Your task to perform on an android device: Search for the ikea billy bookcase Image 0: 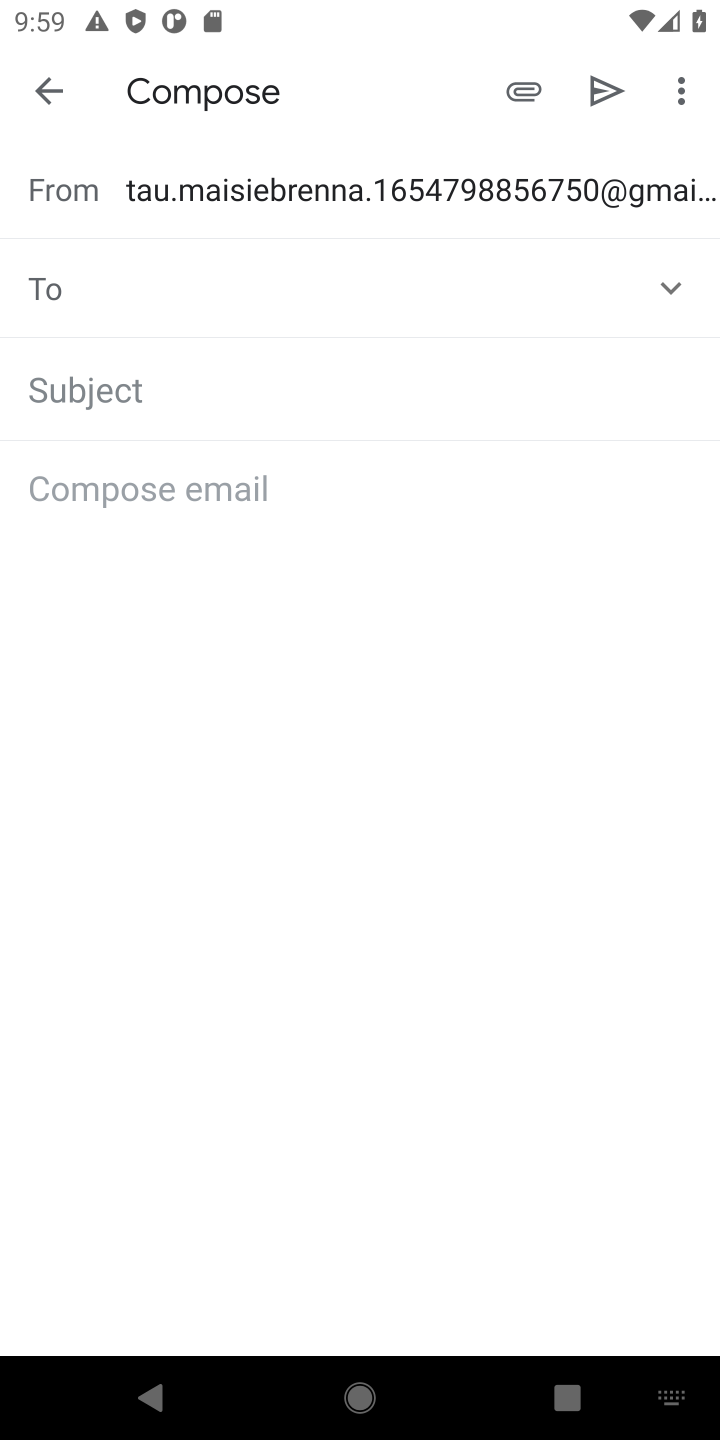
Step 0: press home button
Your task to perform on an android device: Search for the ikea billy bookcase Image 1: 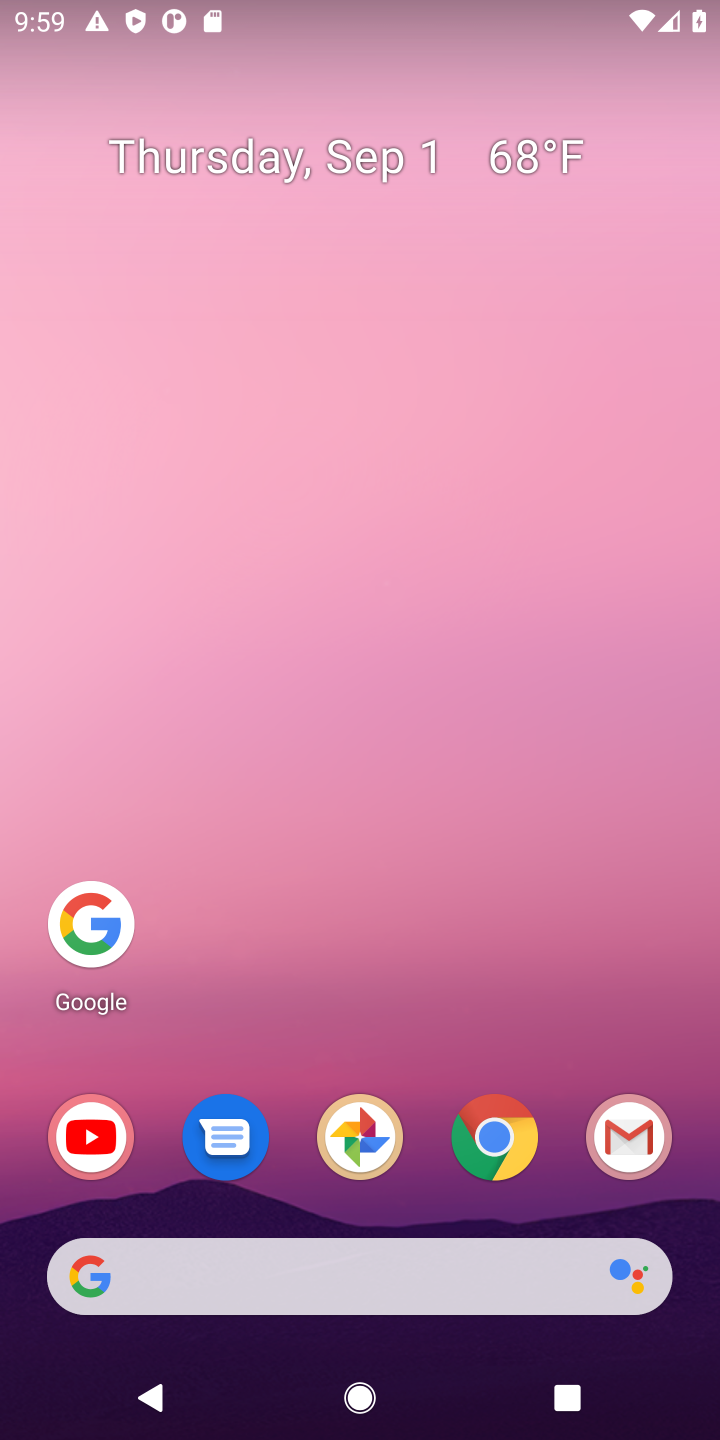
Step 1: click (297, 1267)
Your task to perform on an android device: Search for the ikea billy bookcase Image 2: 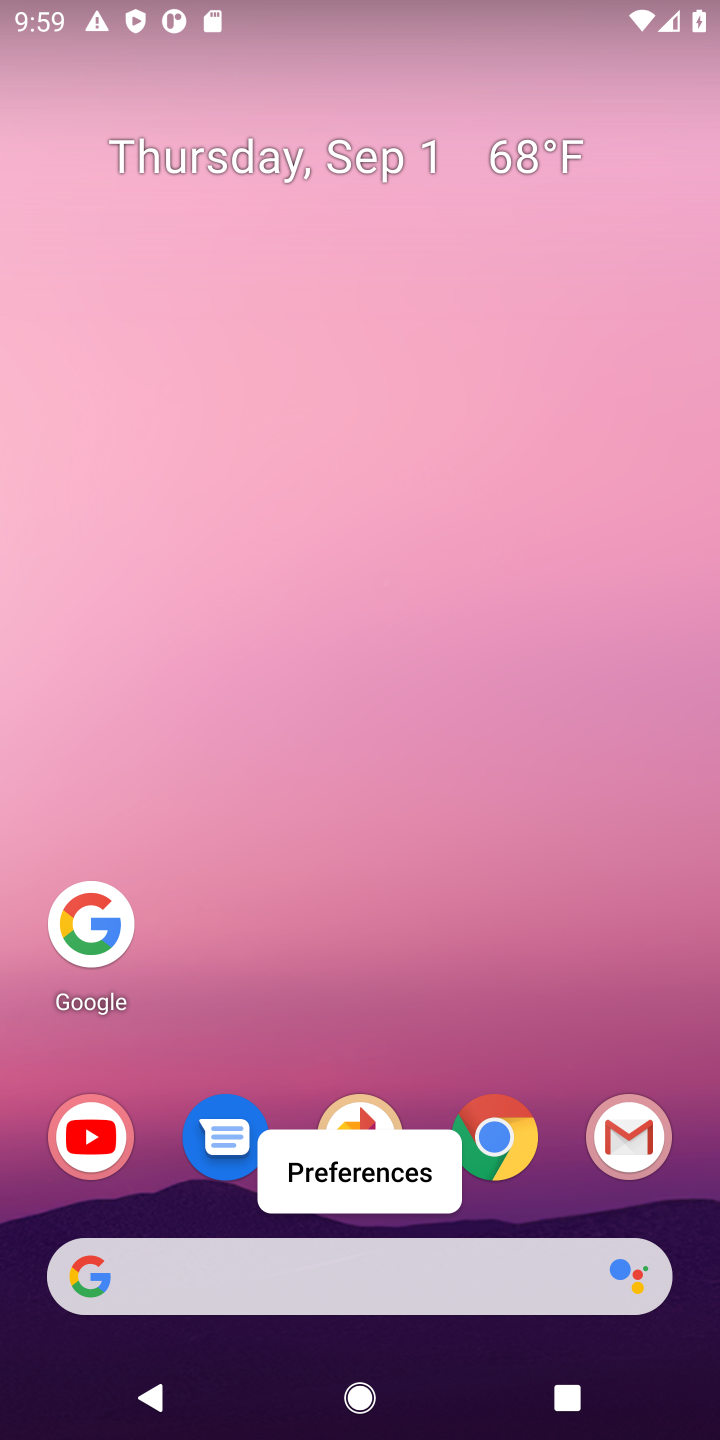
Step 2: click (101, 930)
Your task to perform on an android device: Search for the ikea billy bookcase Image 3: 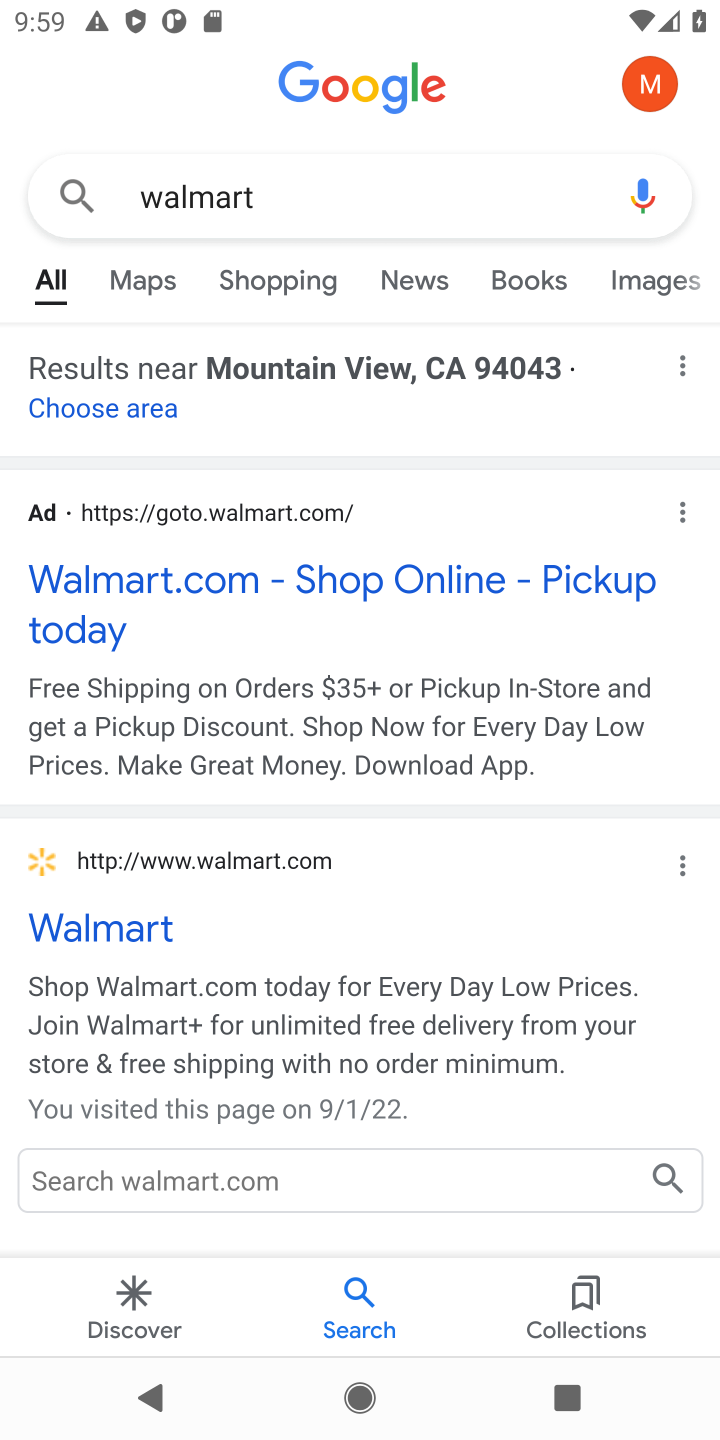
Step 3: click (292, 186)
Your task to perform on an android device: Search for the ikea billy bookcase Image 4: 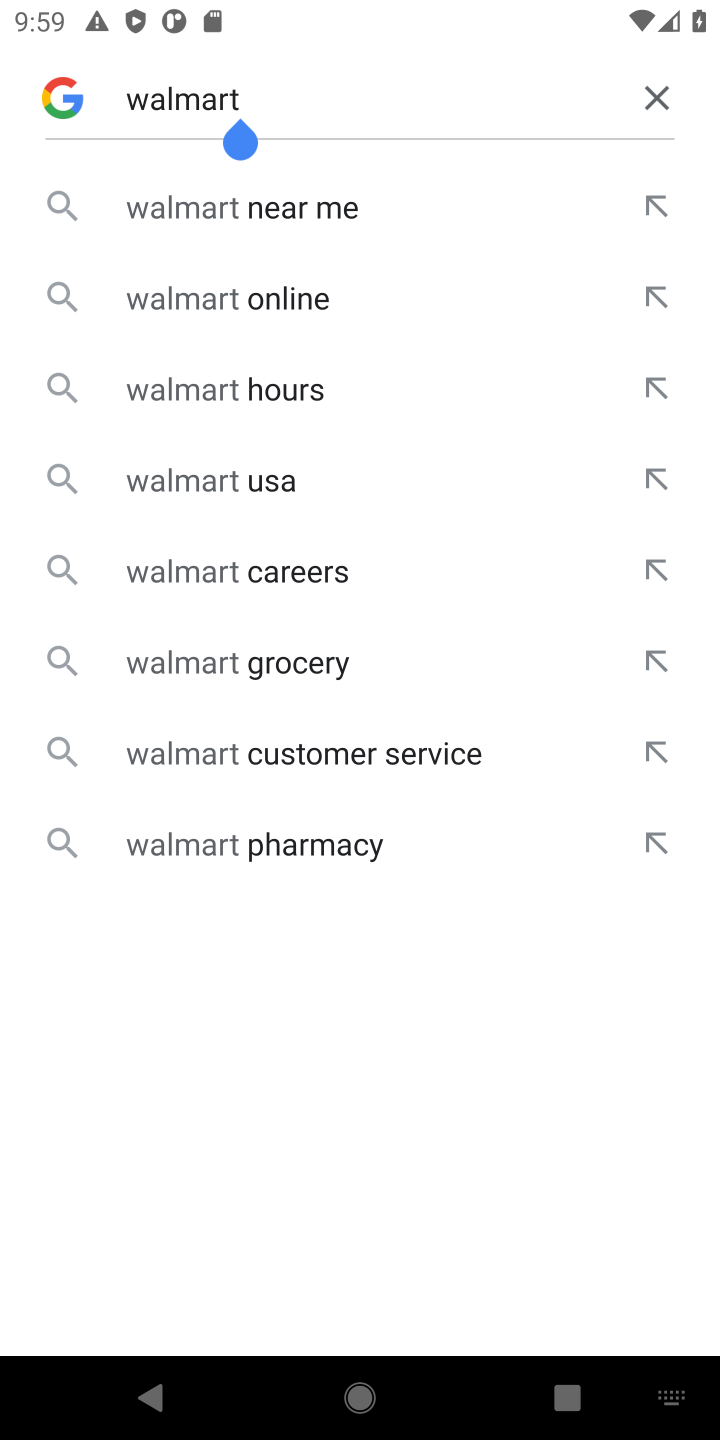
Step 4: click (656, 100)
Your task to perform on an android device: Search for the ikea billy bookcase Image 5: 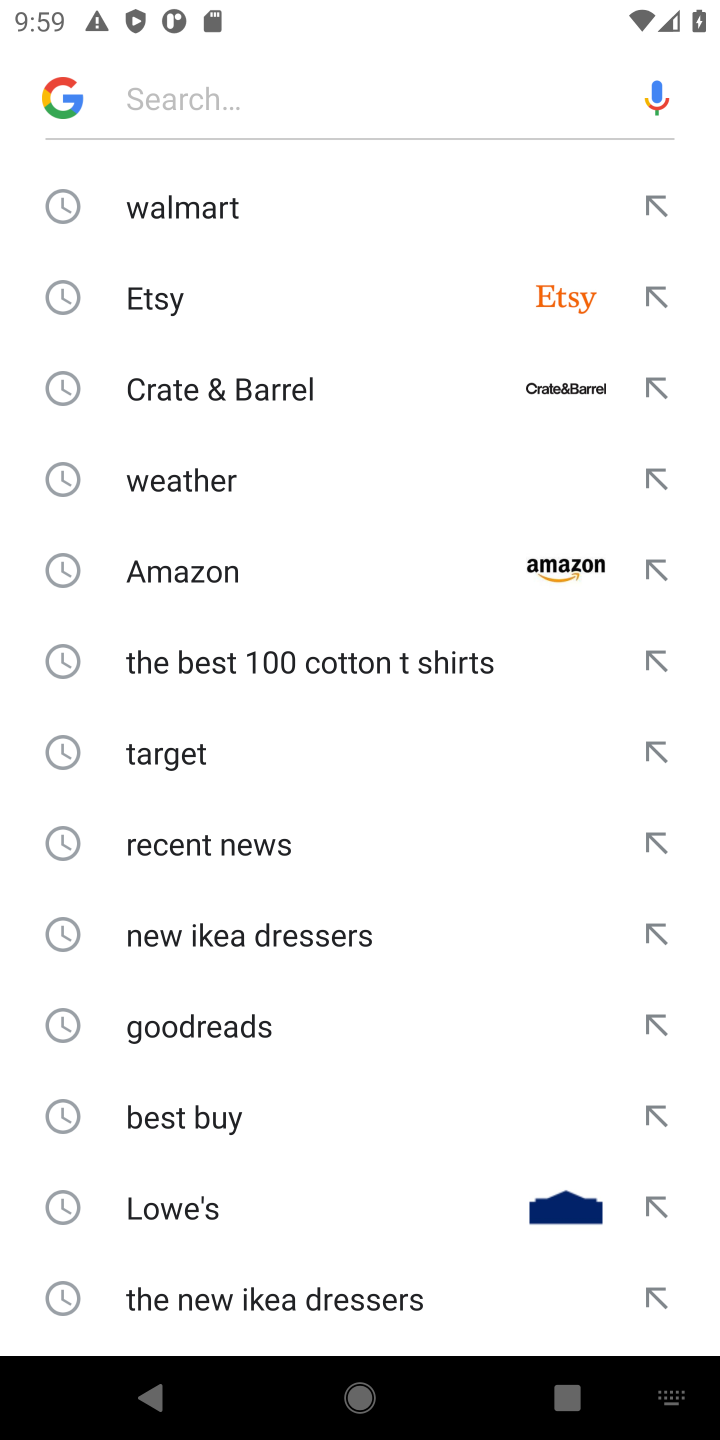
Step 5: type " ikea billy bookcase"
Your task to perform on an android device: Search for the ikea billy bookcase Image 6: 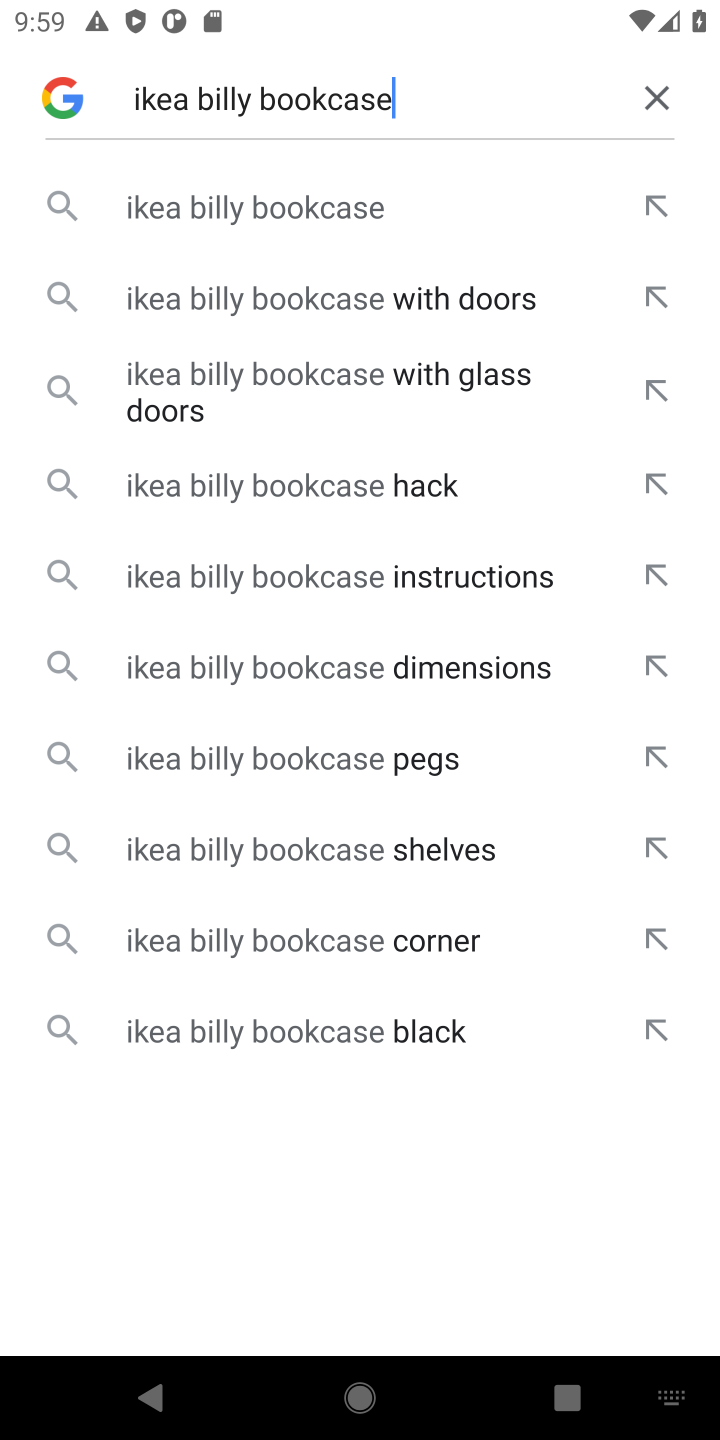
Step 6: click (206, 86)
Your task to perform on an android device: Search for the ikea billy bookcase Image 7: 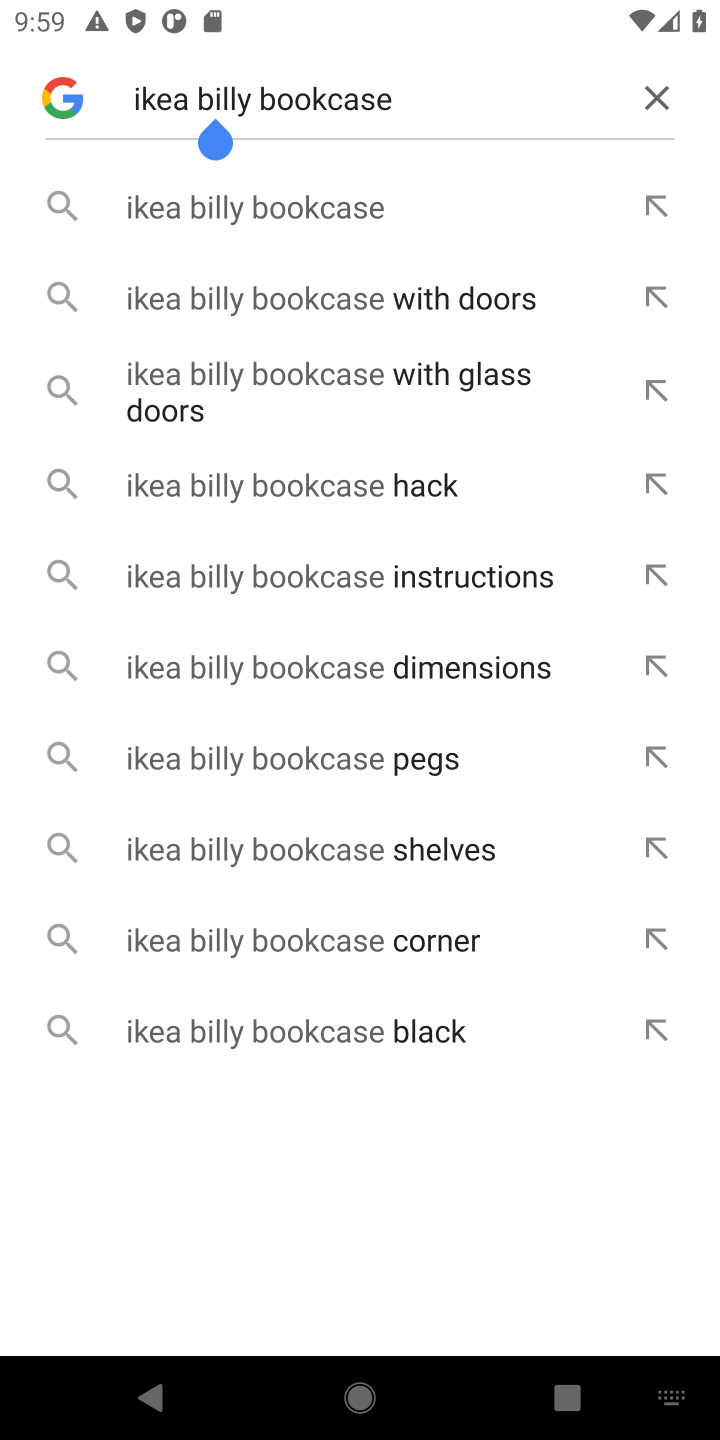
Step 7: click (282, 211)
Your task to perform on an android device: Search for the ikea billy bookcase Image 8: 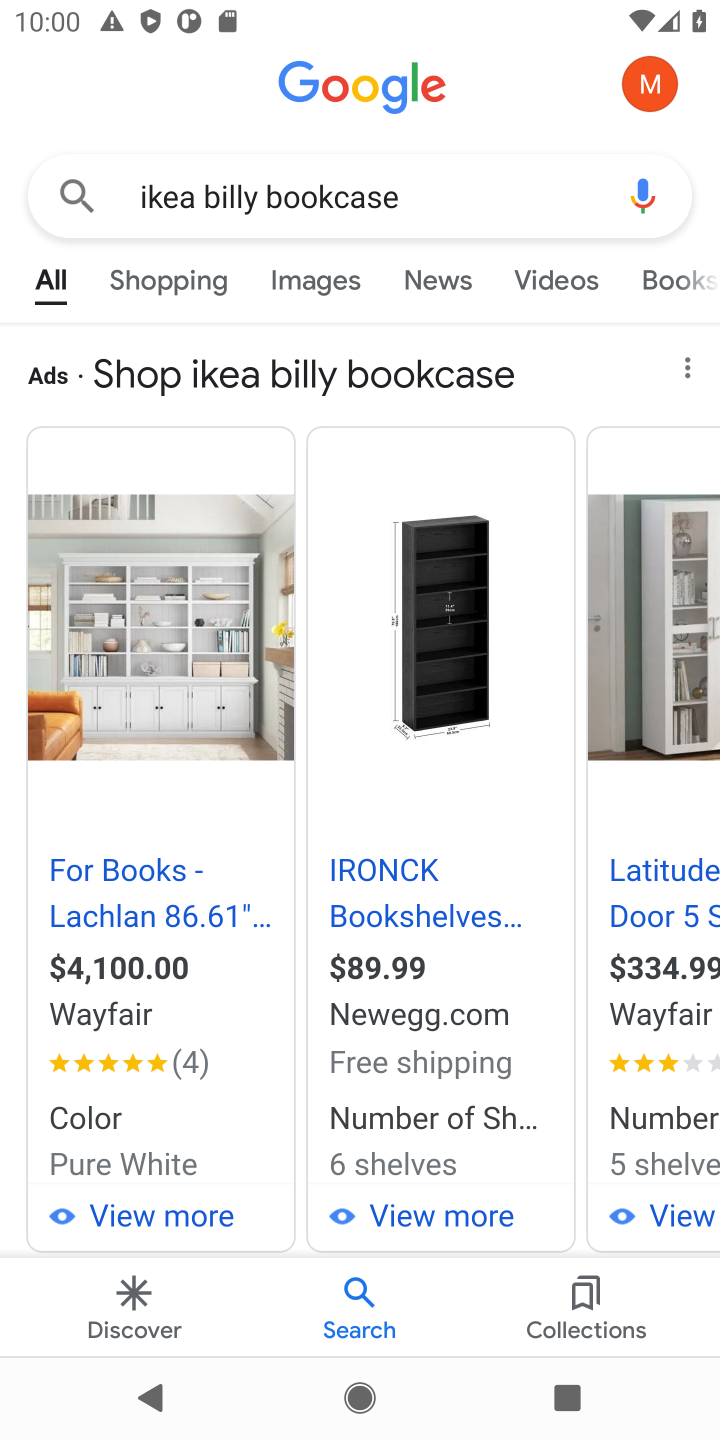
Step 8: task complete